Your task to perform on an android device: Open Maps and search for coffee Image 0: 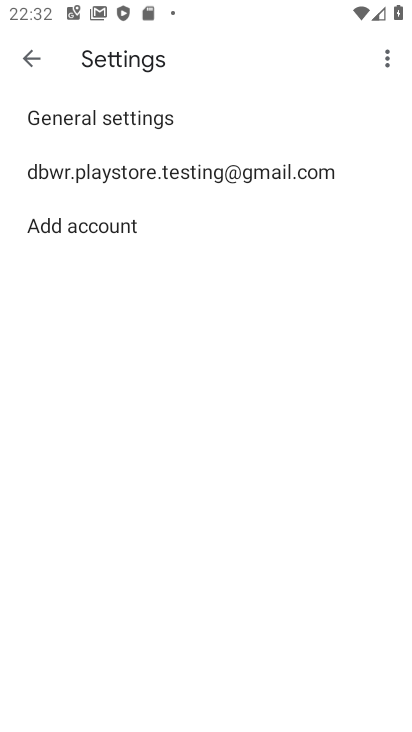
Step 0: press home button
Your task to perform on an android device: Open Maps and search for coffee Image 1: 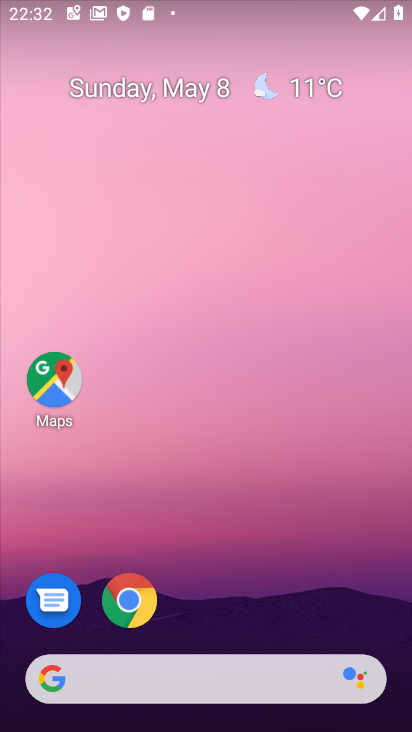
Step 1: click (51, 381)
Your task to perform on an android device: Open Maps and search for coffee Image 2: 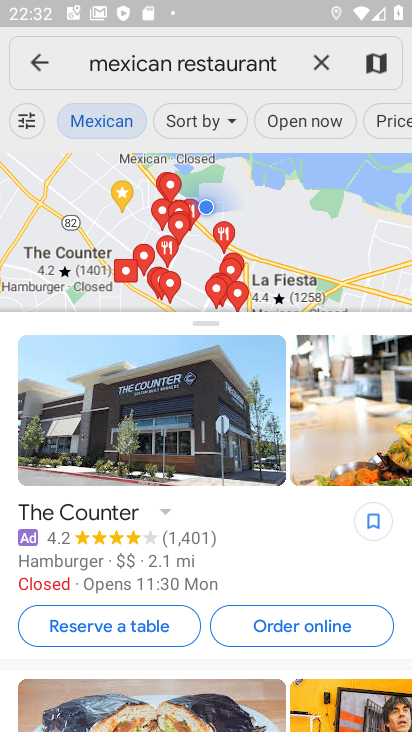
Step 2: click (323, 63)
Your task to perform on an android device: Open Maps and search for coffee Image 3: 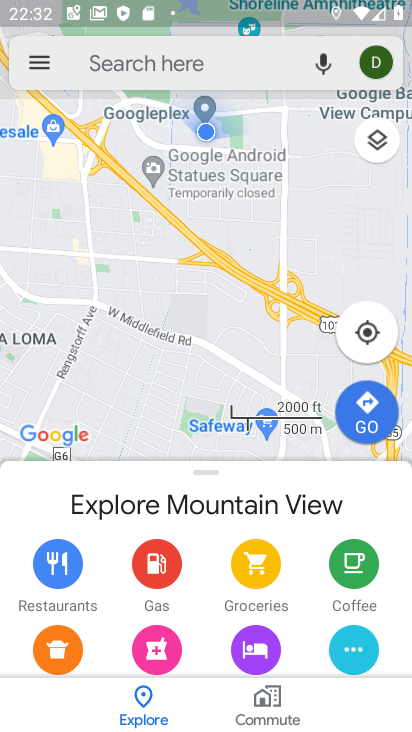
Step 3: click (199, 58)
Your task to perform on an android device: Open Maps and search for coffee Image 4: 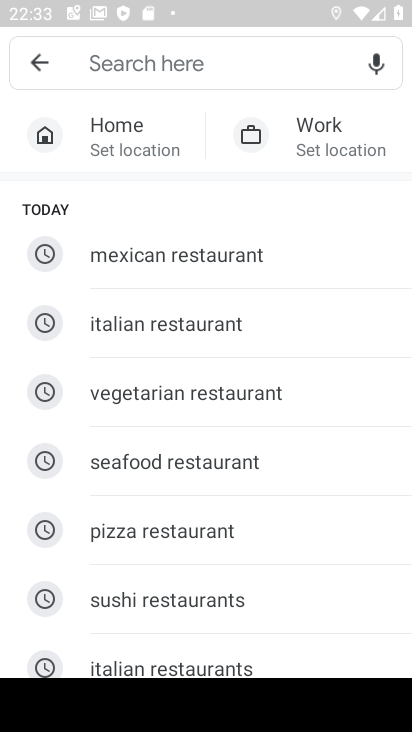
Step 4: type "coffee"
Your task to perform on an android device: Open Maps and search for coffee Image 5: 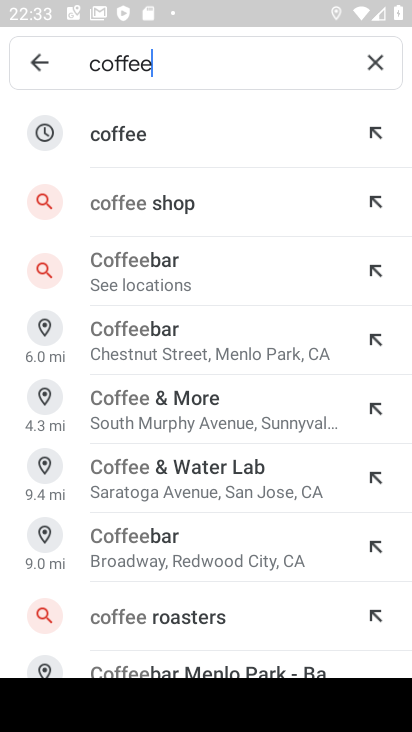
Step 5: click (157, 224)
Your task to perform on an android device: Open Maps and search for coffee Image 6: 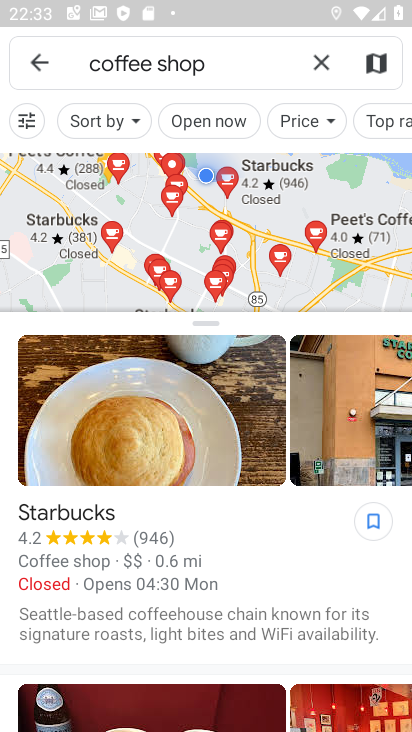
Step 6: task complete